Your task to perform on an android device: Look up the book "The Girl on the Train". Image 0: 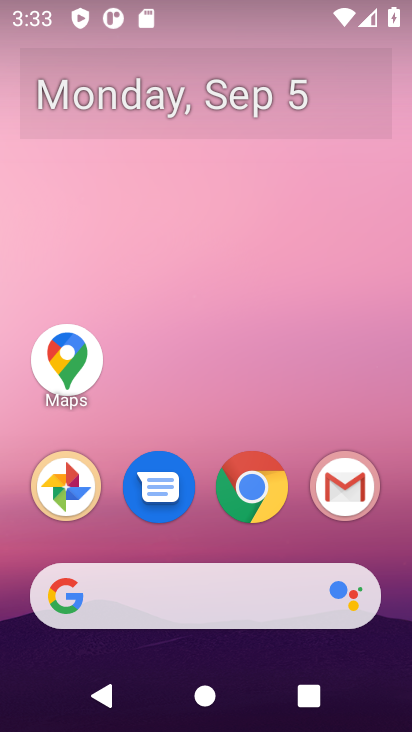
Step 0: drag from (208, 528) to (219, 35)
Your task to perform on an android device: Look up the book "The Girl on the Train". Image 1: 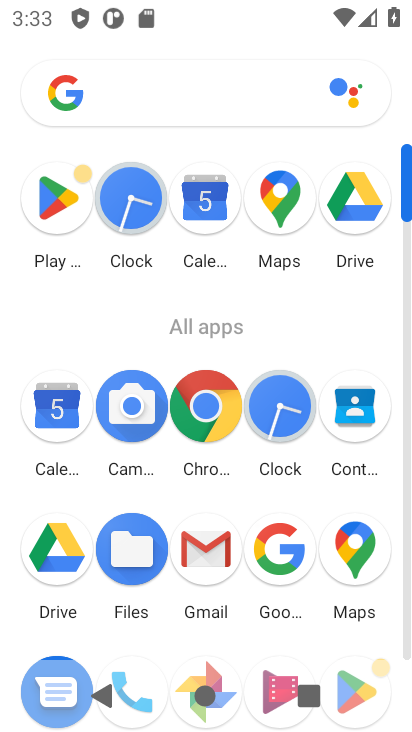
Step 1: click (201, 407)
Your task to perform on an android device: Look up the book "The Girl on the Train". Image 2: 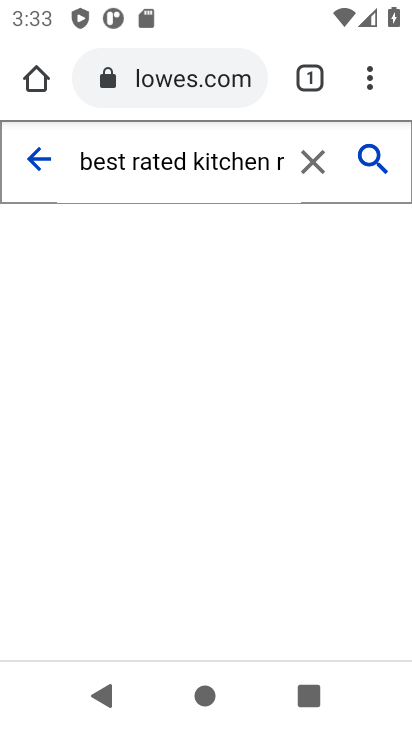
Step 2: click (214, 80)
Your task to perform on an android device: Look up the book "The Girl on the Train". Image 3: 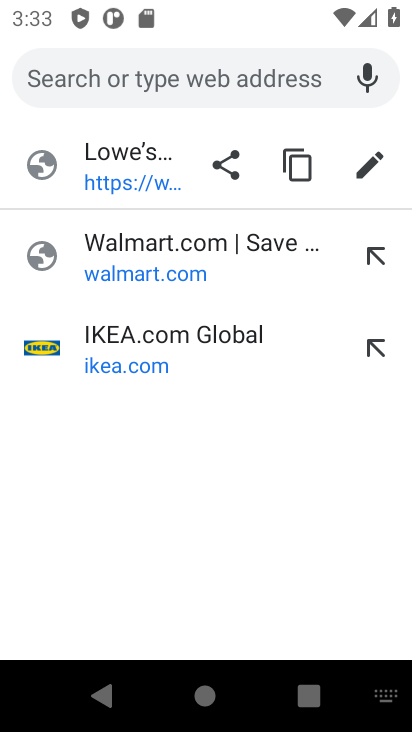
Step 3: type "The Girl on the Train"
Your task to perform on an android device: Look up the book "The Girl on the Train". Image 4: 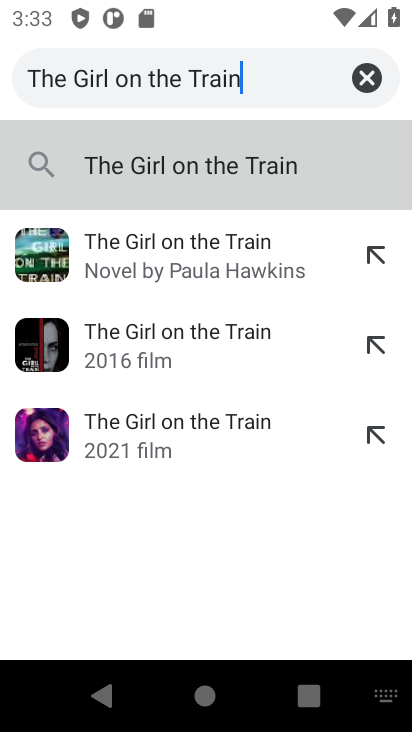
Step 4: click (210, 176)
Your task to perform on an android device: Look up the book "The Girl on the Train". Image 5: 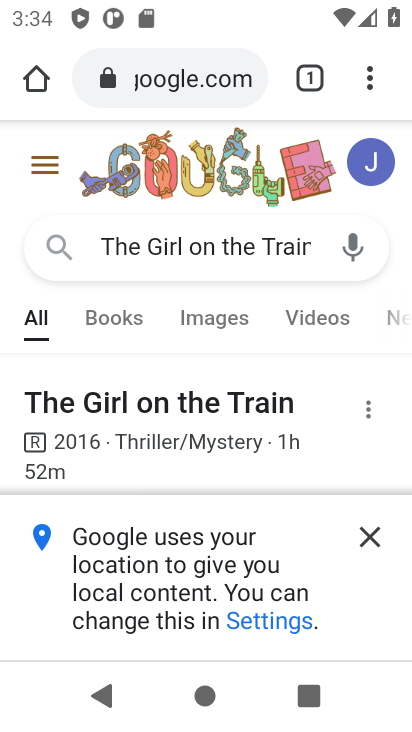
Step 5: click (141, 396)
Your task to perform on an android device: Look up the book "The Girl on the Train". Image 6: 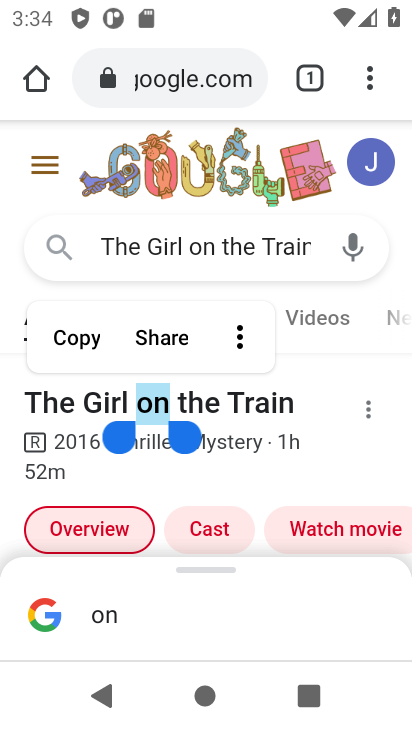
Step 6: click (266, 404)
Your task to perform on an android device: Look up the book "The Girl on the Train". Image 7: 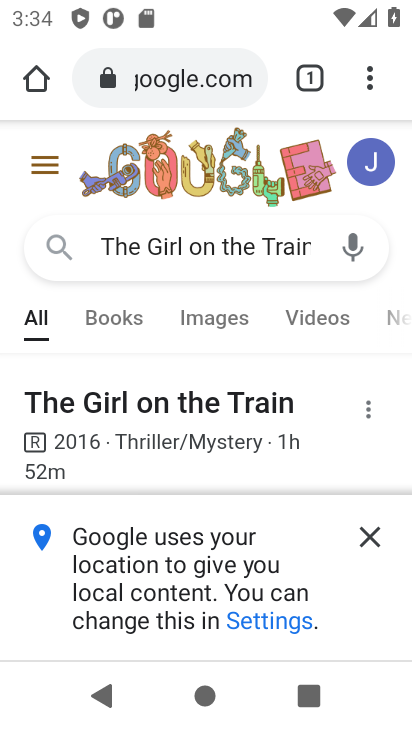
Step 7: click (266, 404)
Your task to perform on an android device: Look up the book "The Girl on the Train". Image 8: 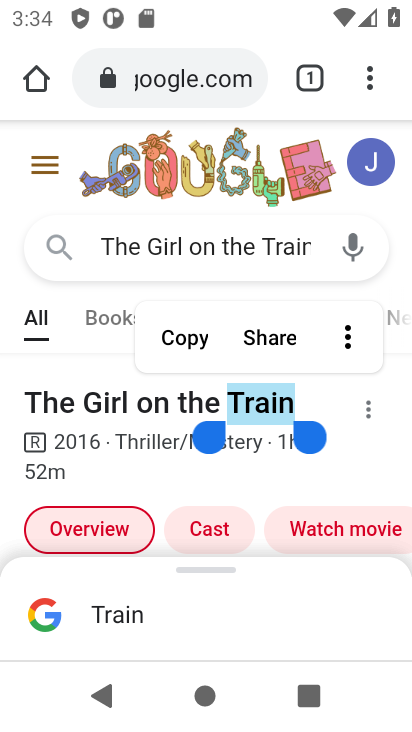
Step 8: task complete